Your task to perform on an android device: open chrome privacy settings Image 0: 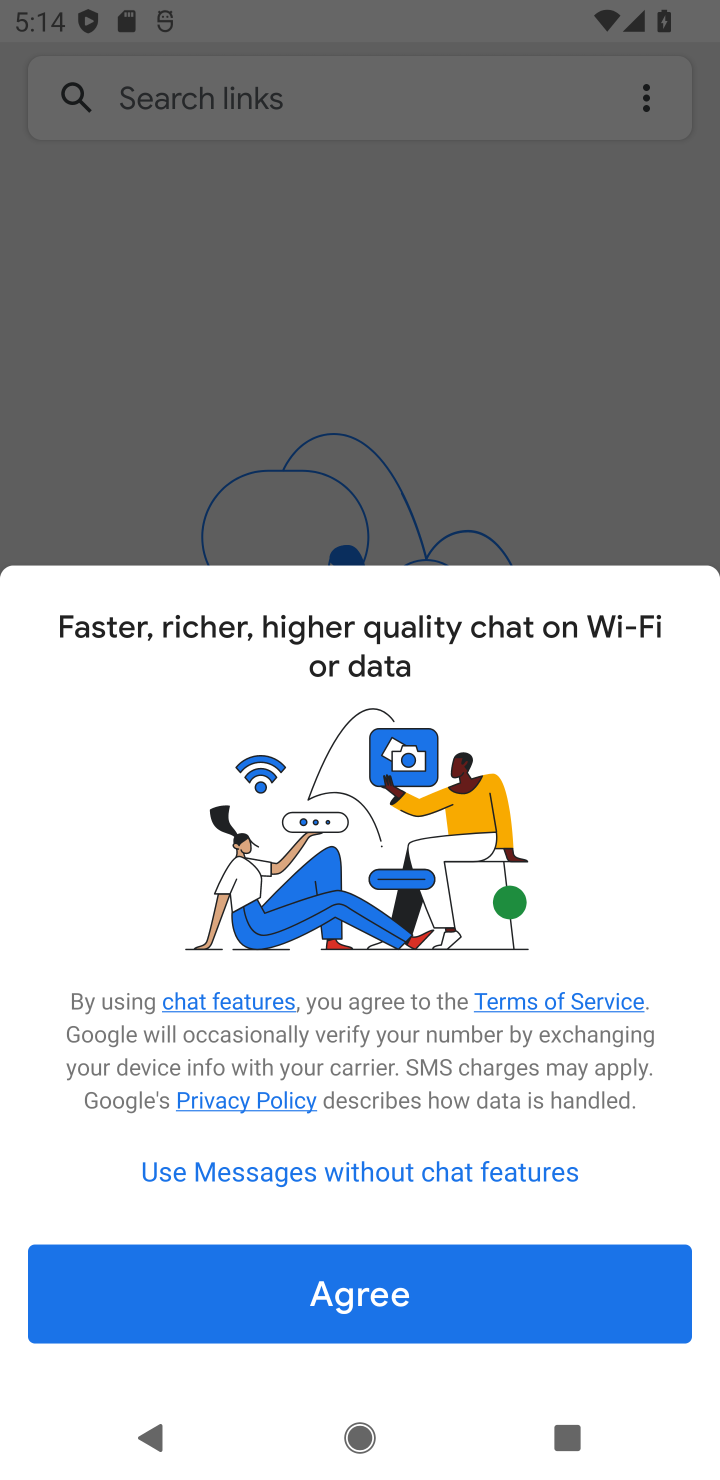
Step 0: press home button
Your task to perform on an android device: open chrome privacy settings Image 1: 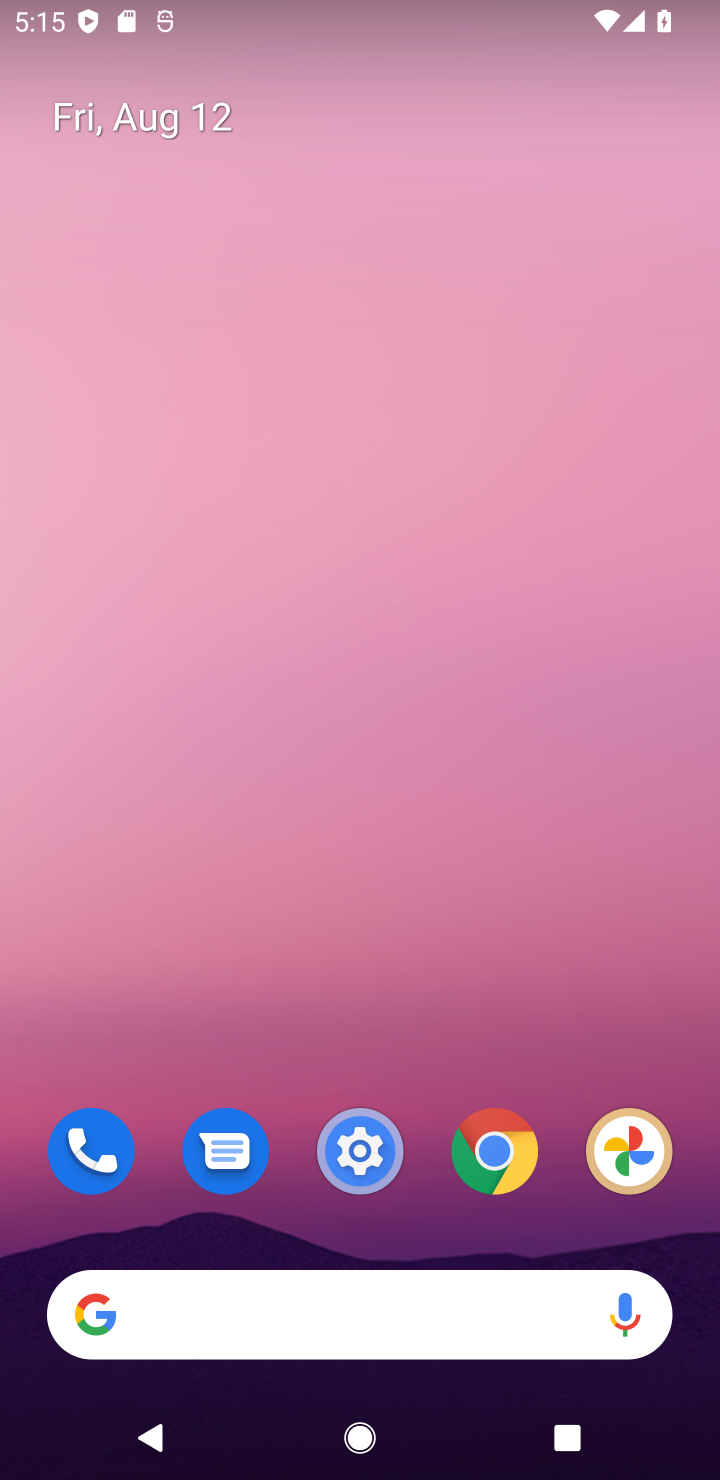
Step 1: drag from (572, 960) to (589, 135)
Your task to perform on an android device: open chrome privacy settings Image 2: 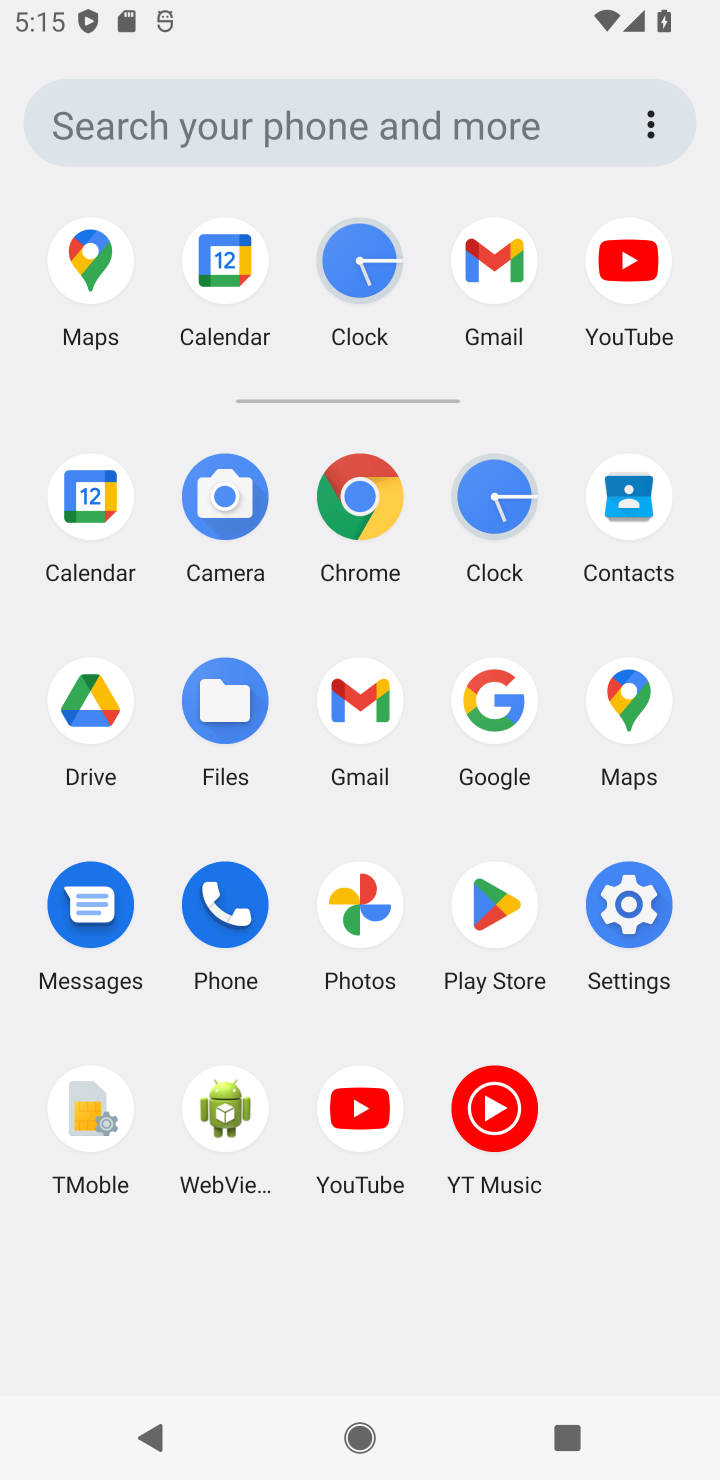
Step 2: click (374, 490)
Your task to perform on an android device: open chrome privacy settings Image 3: 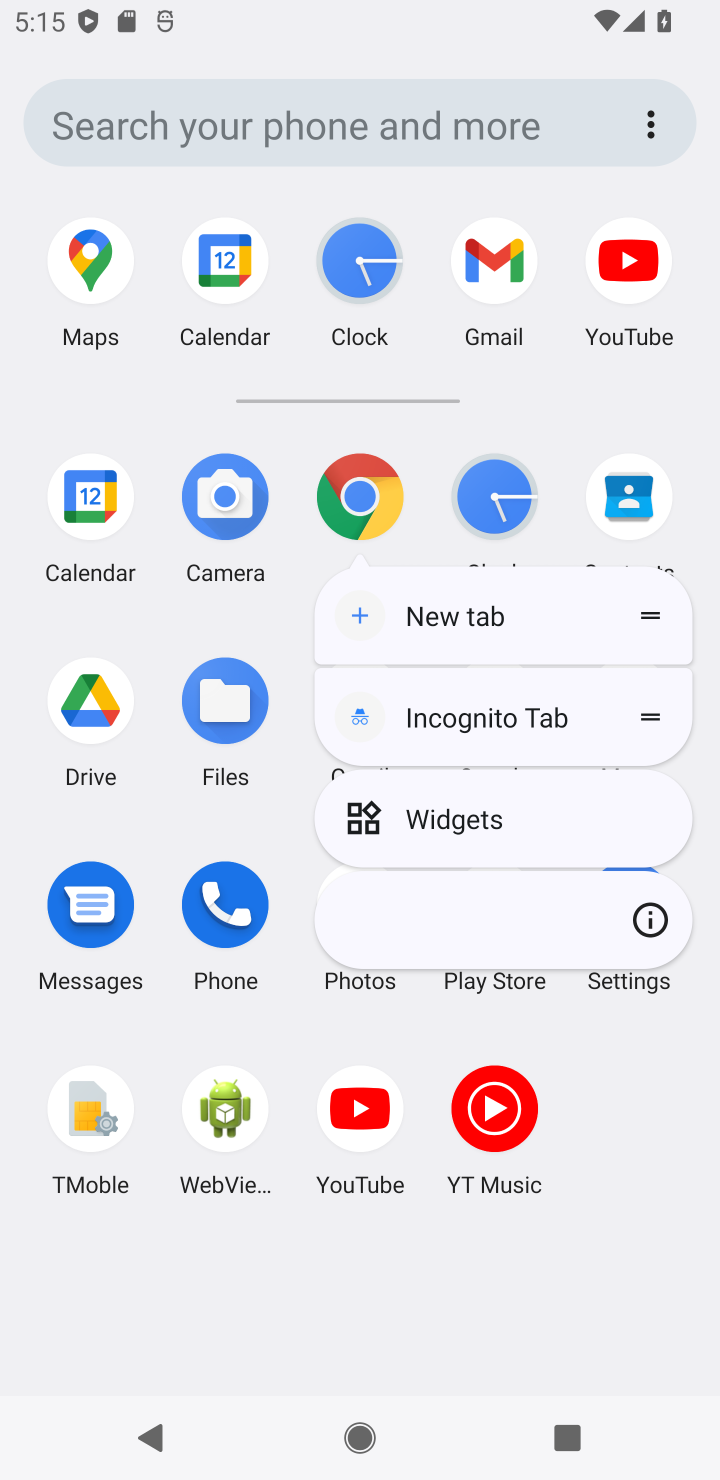
Step 3: click (363, 503)
Your task to perform on an android device: open chrome privacy settings Image 4: 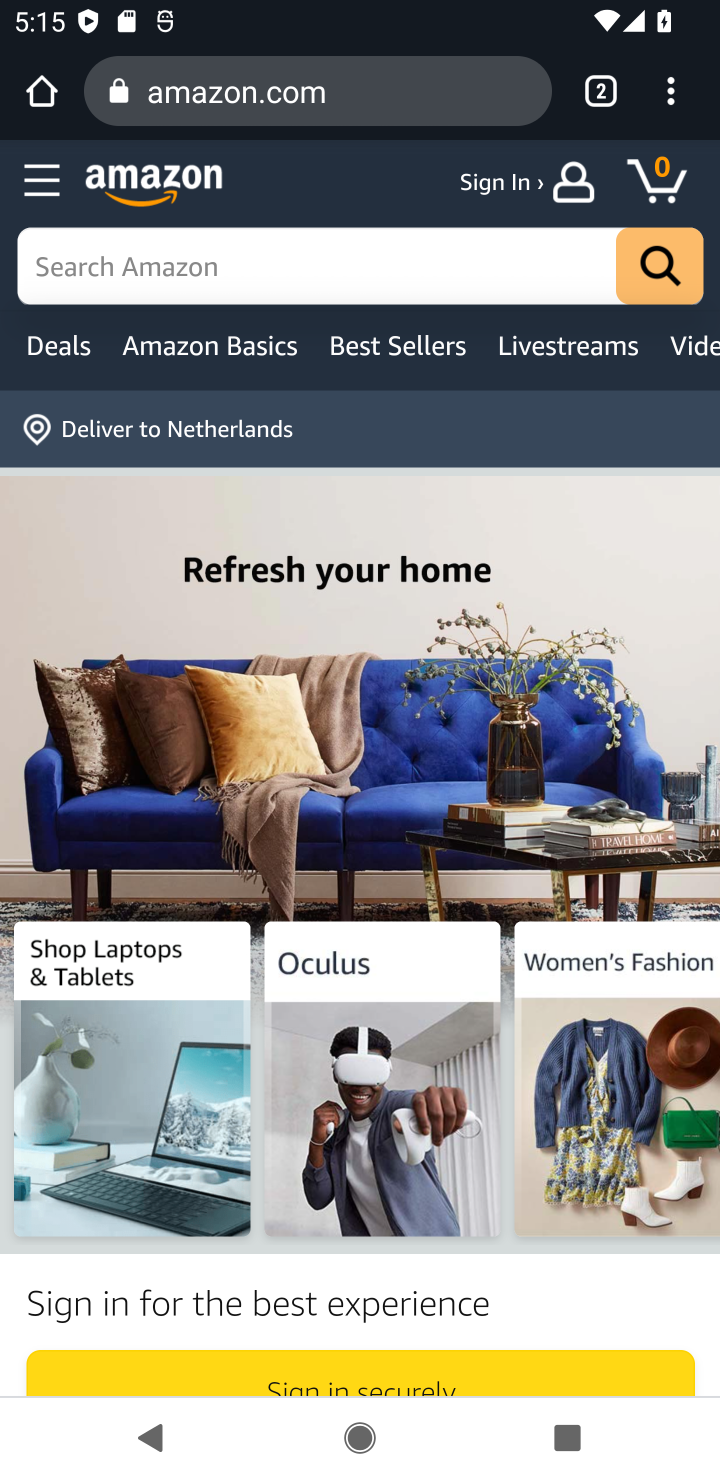
Step 4: drag from (657, 85) to (378, 1186)
Your task to perform on an android device: open chrome privacy settings Image 5: 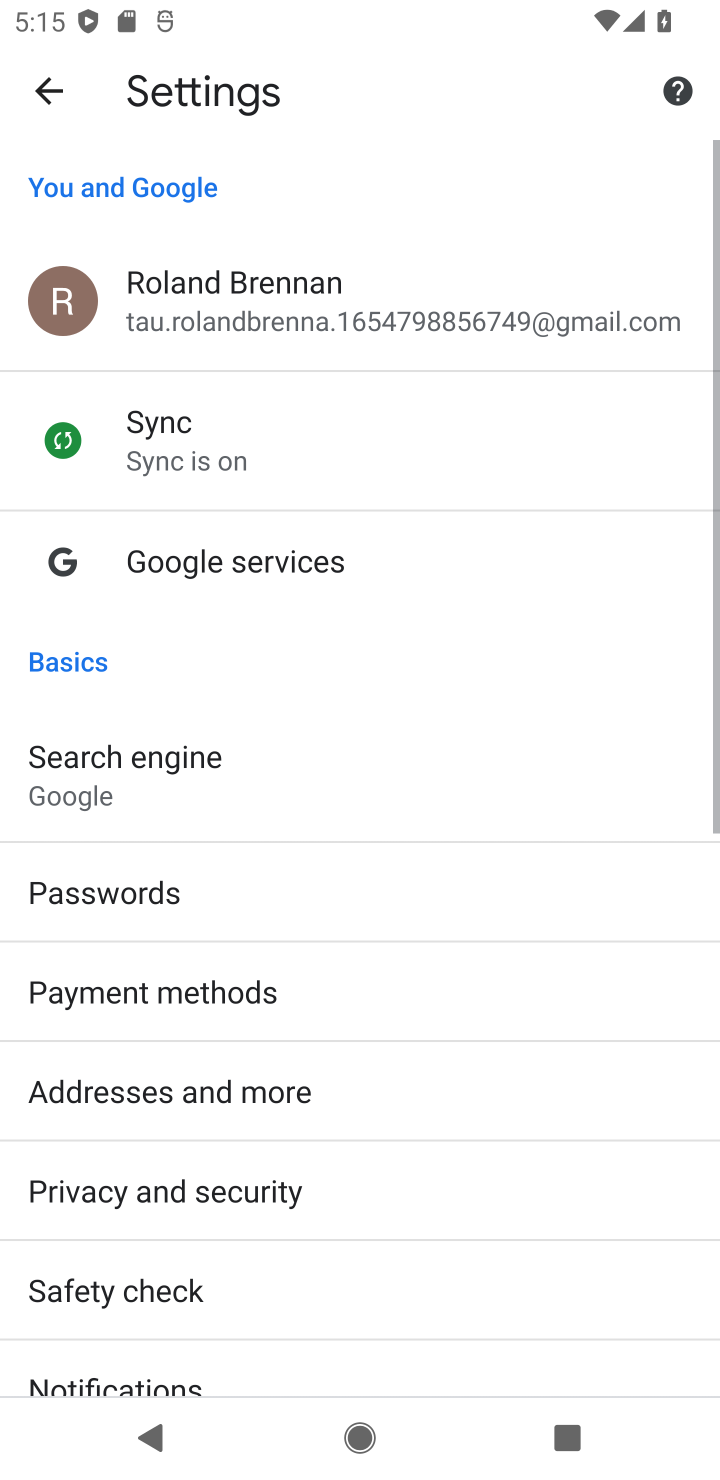
Step 5: drag from (378, 1172) to (565, 369)
Your task to perform on an android device: open chrome privacy settings Image 6: 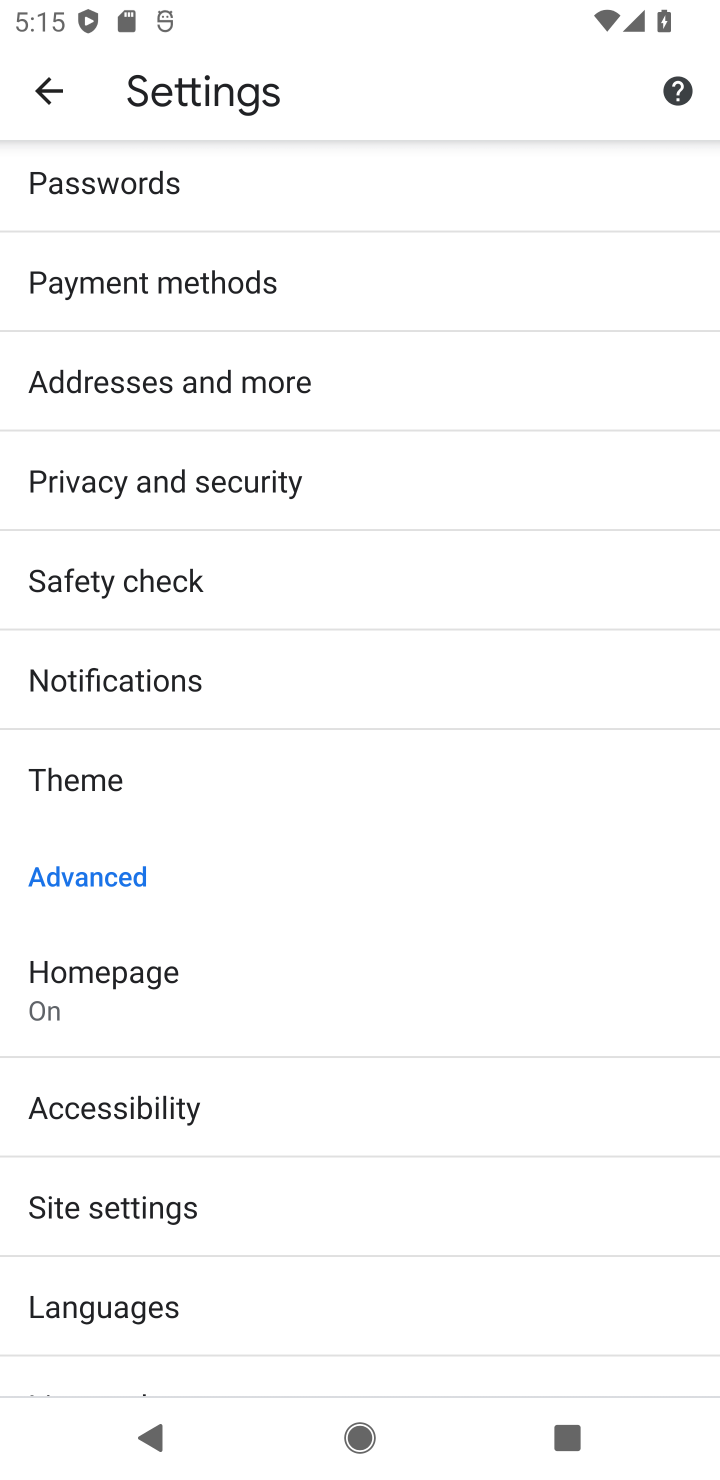
Step 6: click (193, 1212)
Your task to perform on an android device: open chrome privacy settings Image 7: 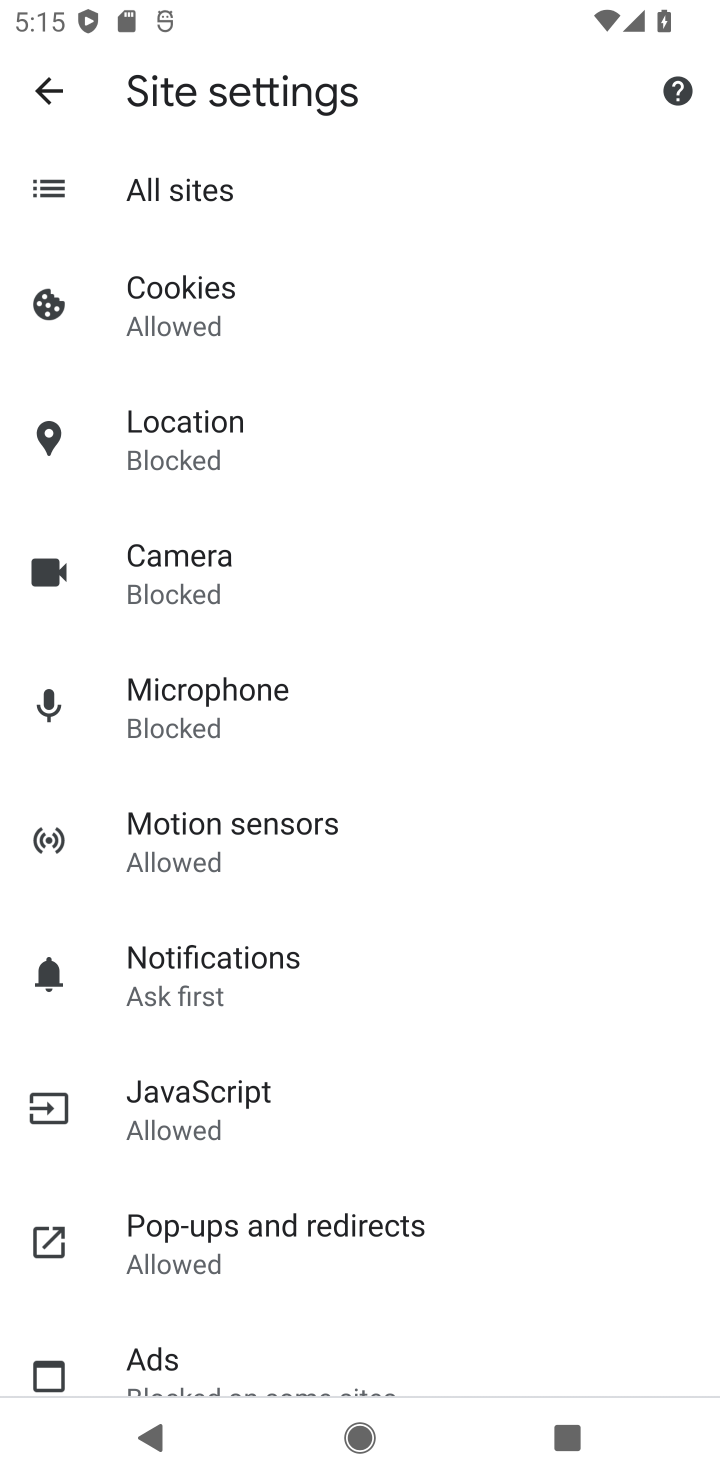
Step 7: drag from (463, 1170) to (584, 306)
Your task to perform on an android device: open chrome privacy settings Image 8: 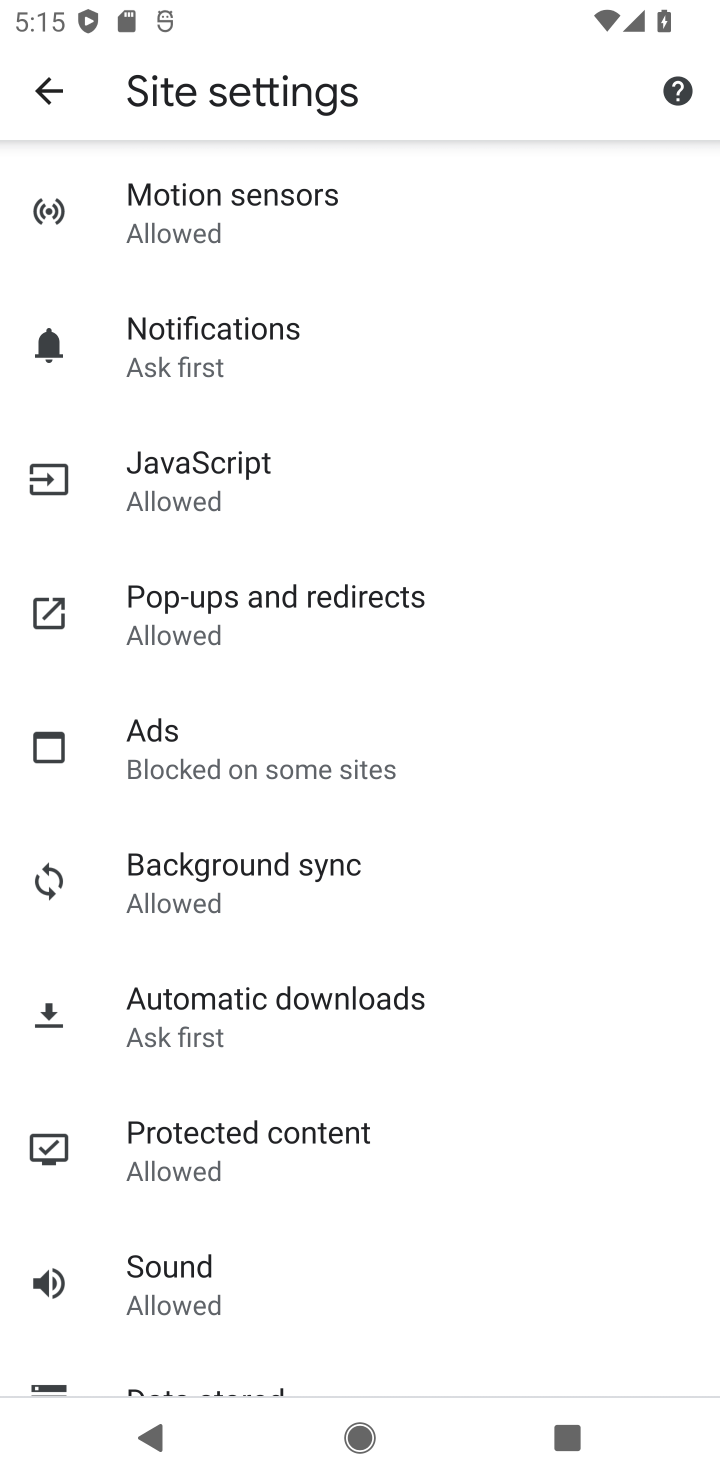
Step 8: drag from (459, 1228) to (660, 448)
Your task to perform on an android device: open chrome privacy settings Image 9: 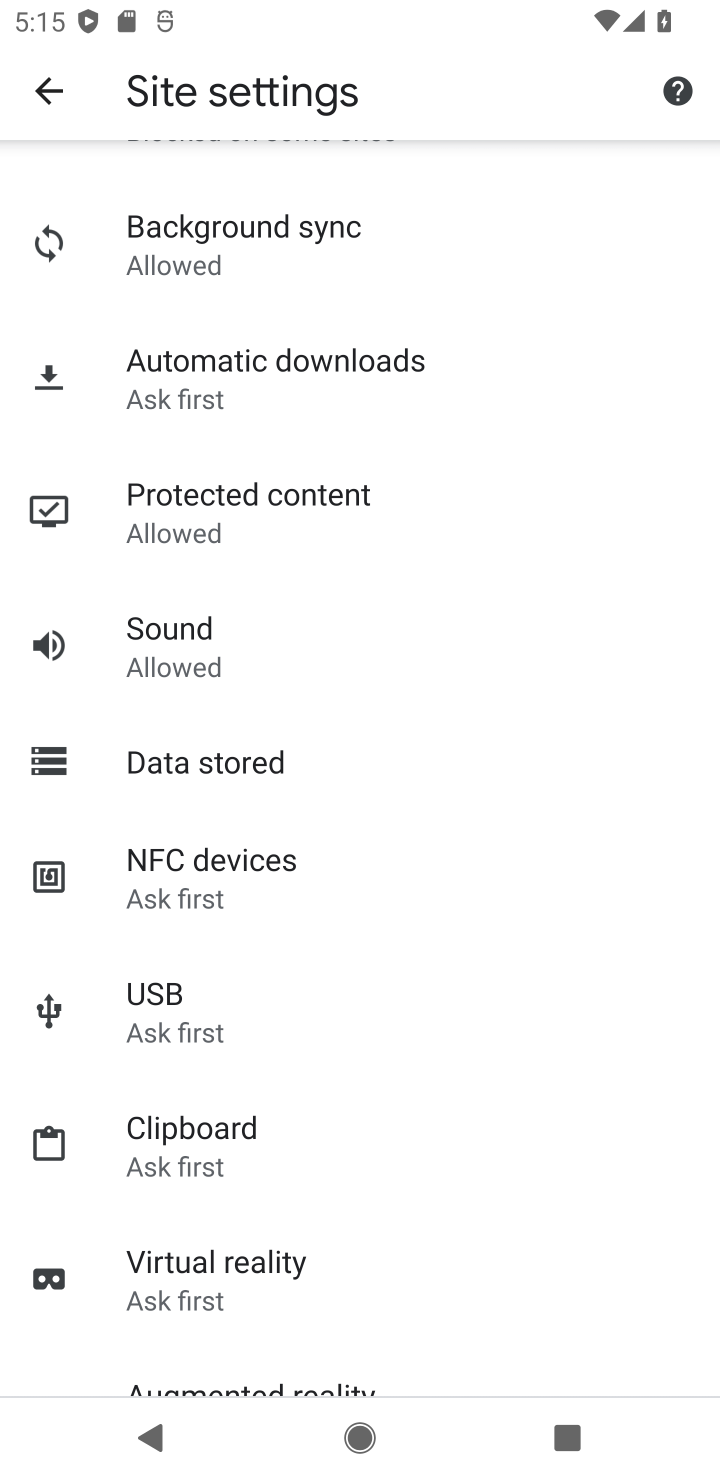
Step 9: drag from (360, 1131) to (315, 1238)
Your task to perform on an android device: open chrome privacy settings Image 10: 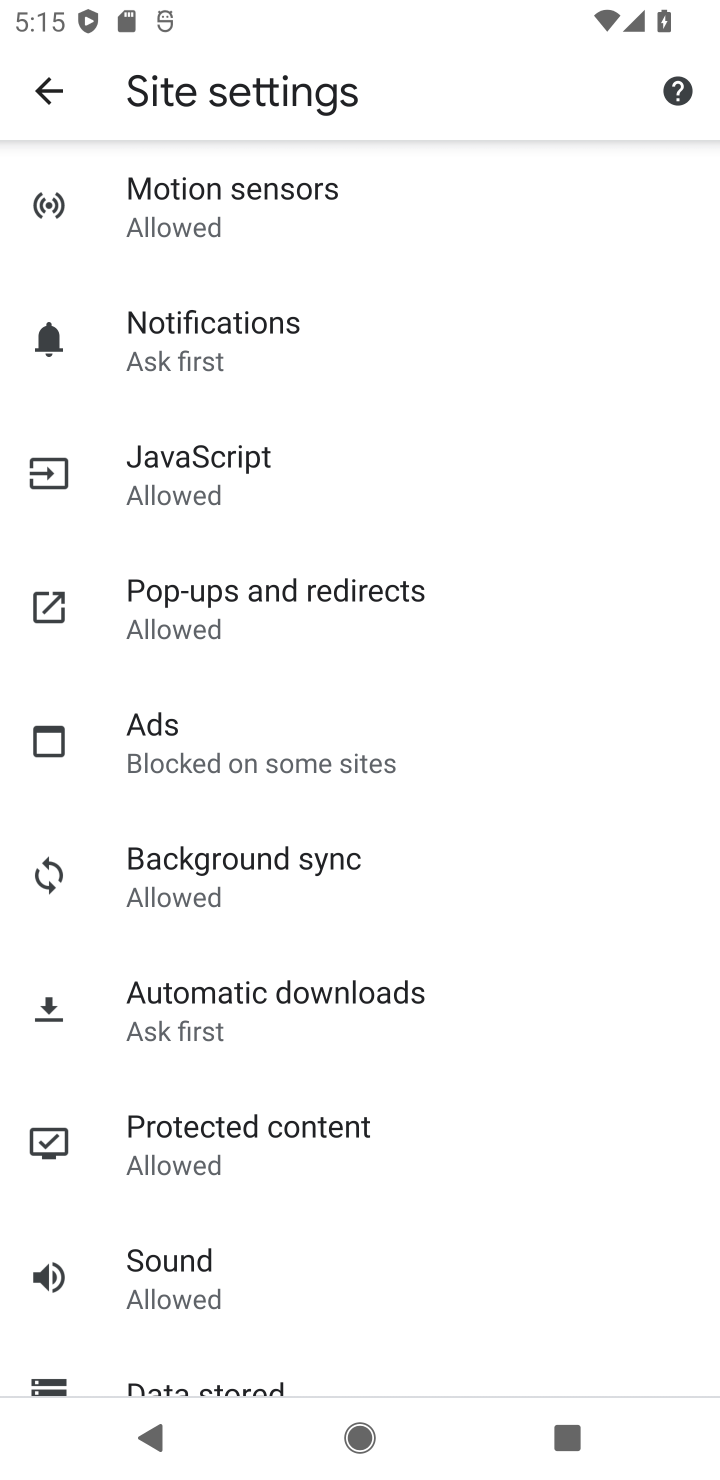
Step 10: drag from (463, 395) to (437, 1249)
Your task to perform on an android device: open chrome privacy settings Image 11: 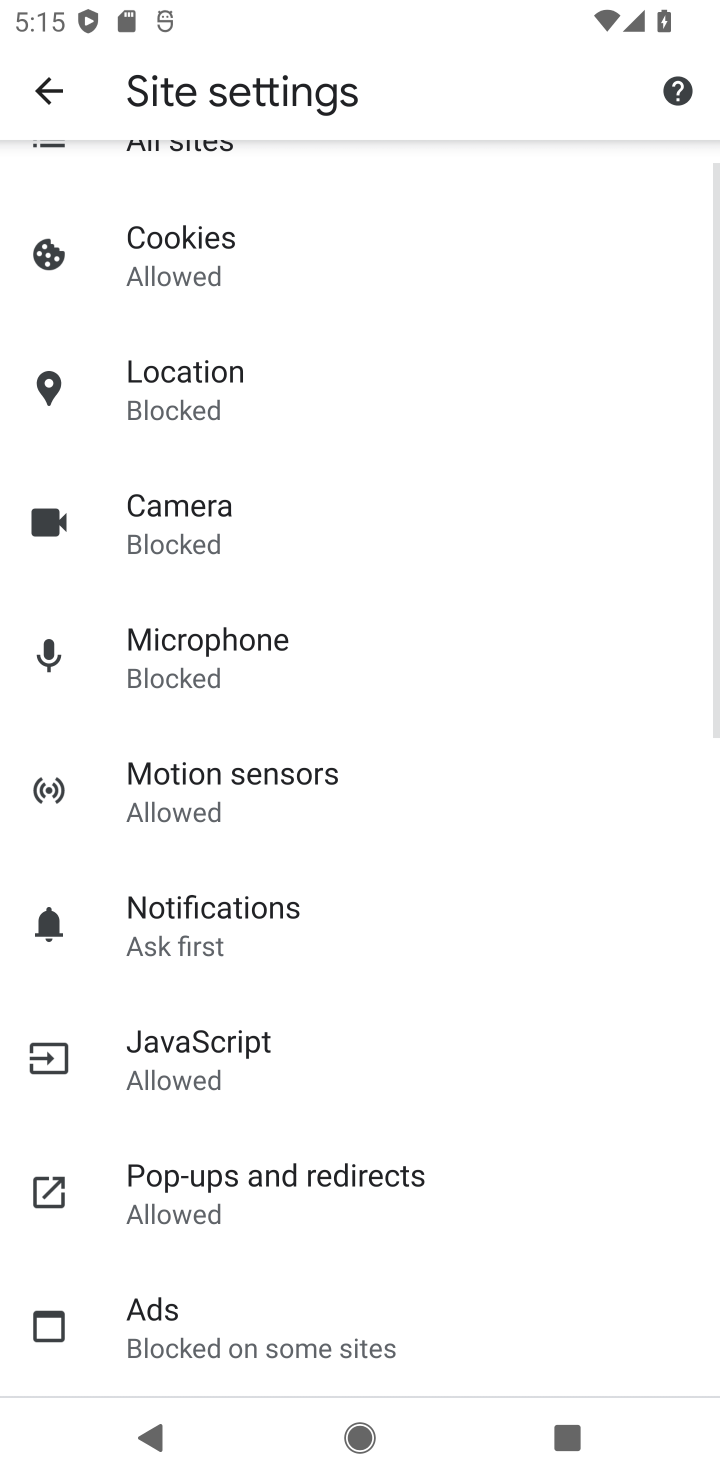
Step 11: click (52, 73)
Your task to perform on an android device: open chrome privacy settings Image 12: 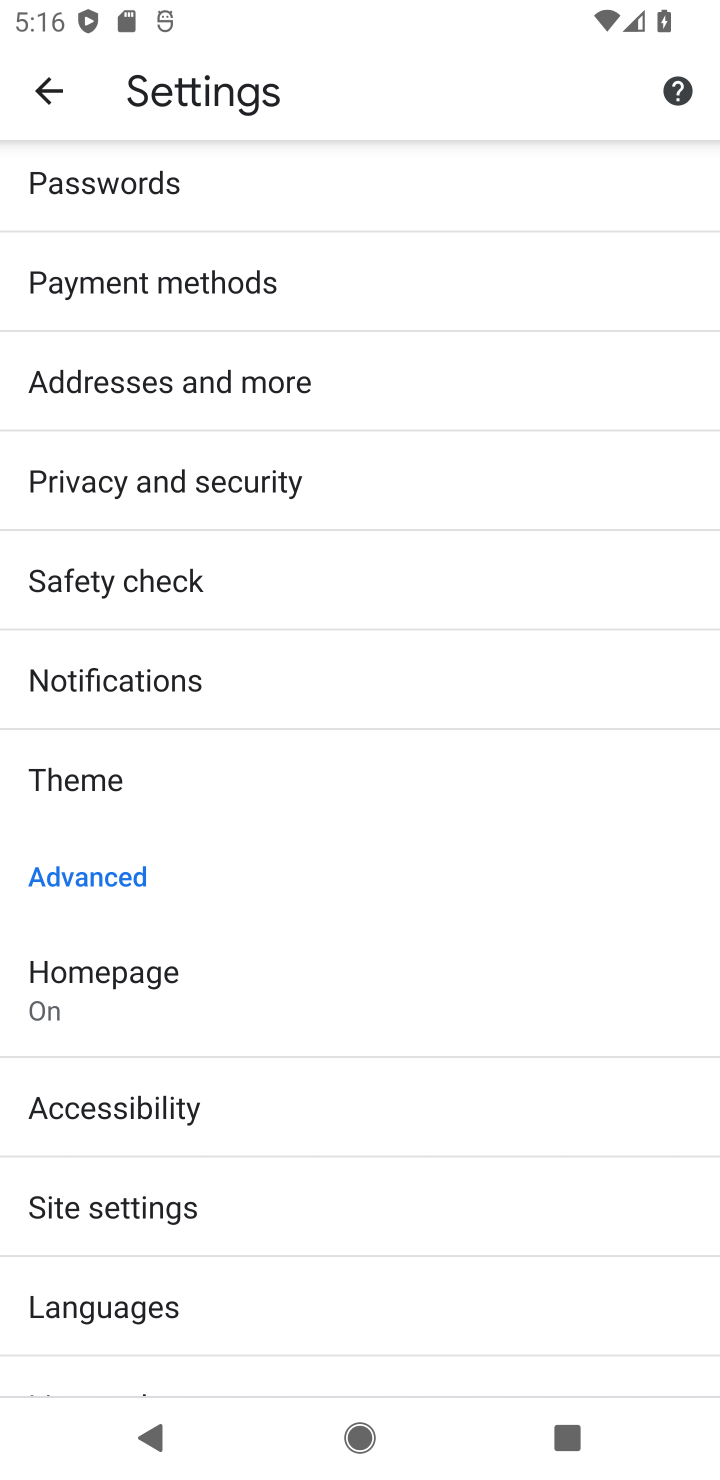
Step 12: drag from (488, 1196) to (587, 270)
Your task to perform on an android device: open chrome privacy settings Image 13: 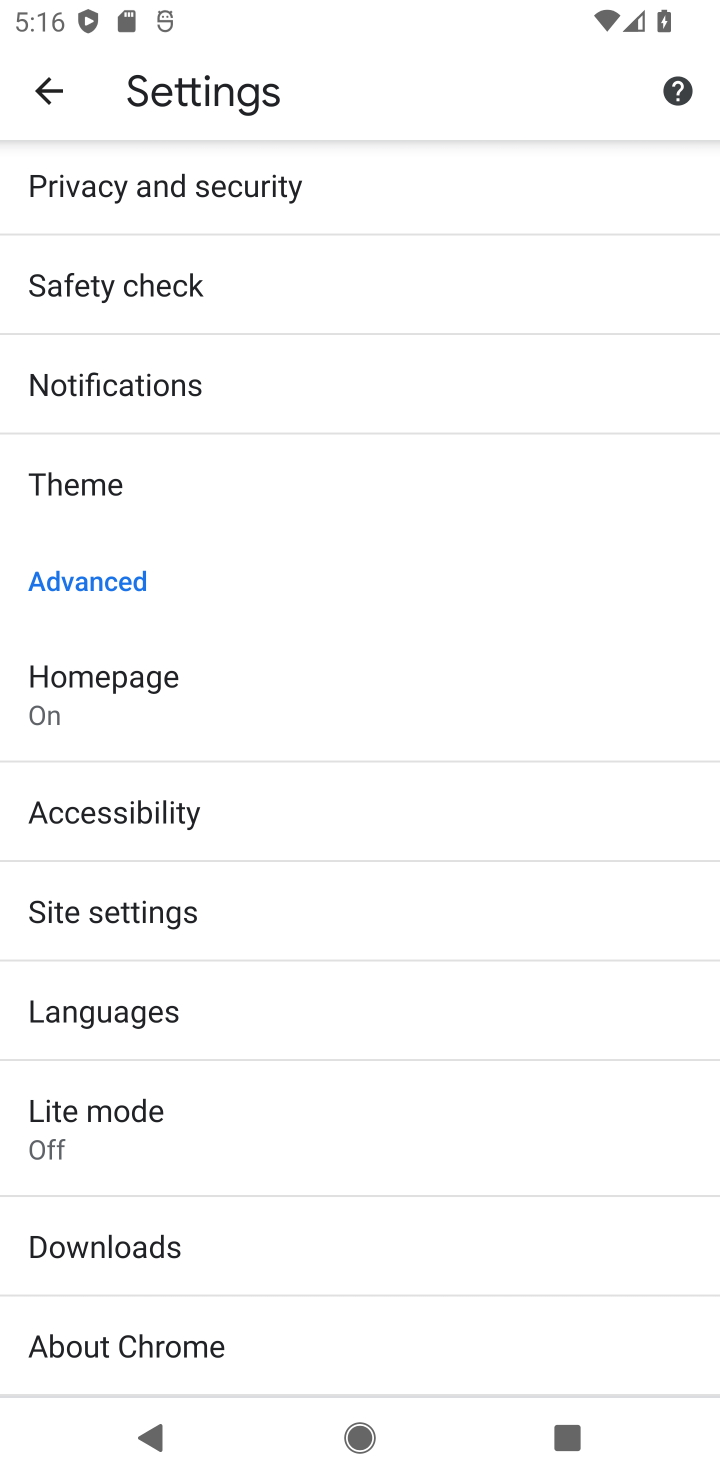
Step 13: drag from (524, 402) to (529, 868)
Your task to perform on an android device: open chrome privacy settings Image 14: 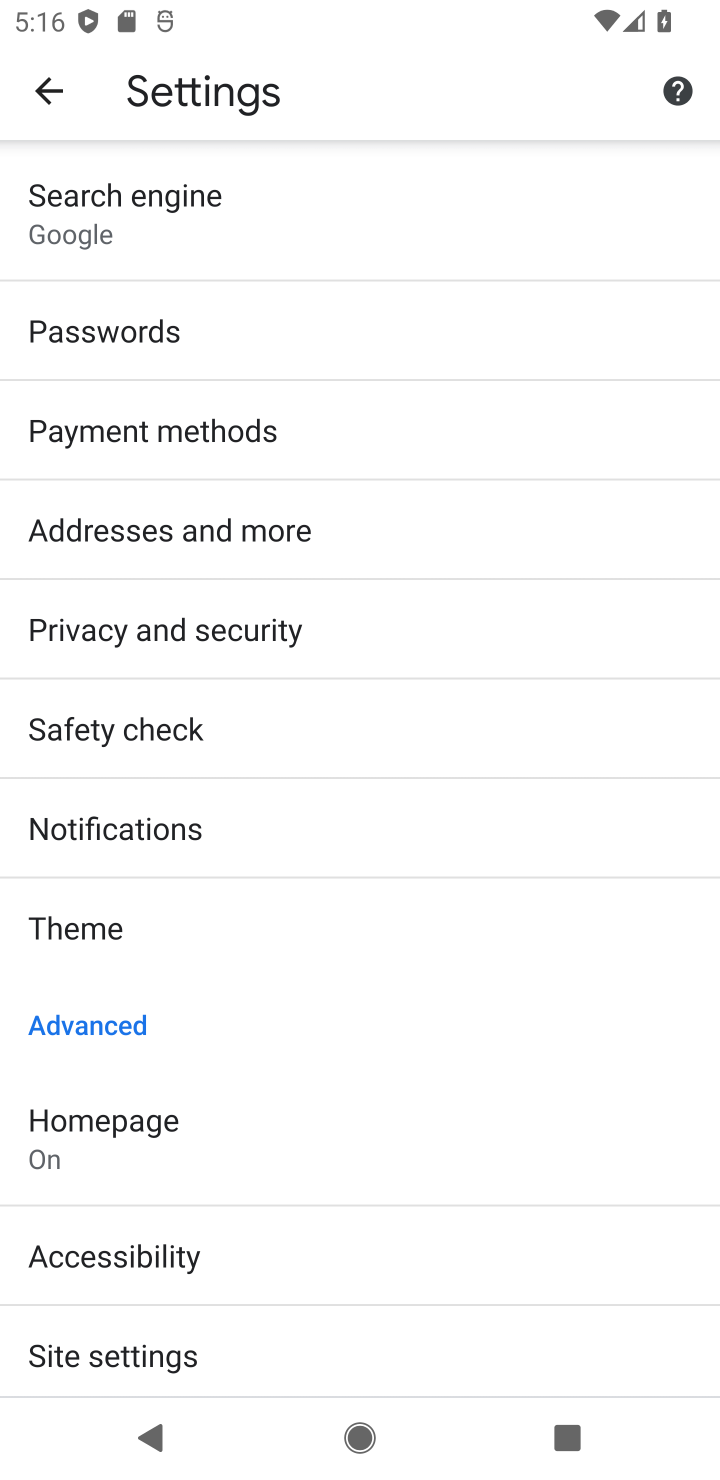
Step 14: click (206, 614)
Your task to perform on an android device: open chrome privacy settings Image 15: 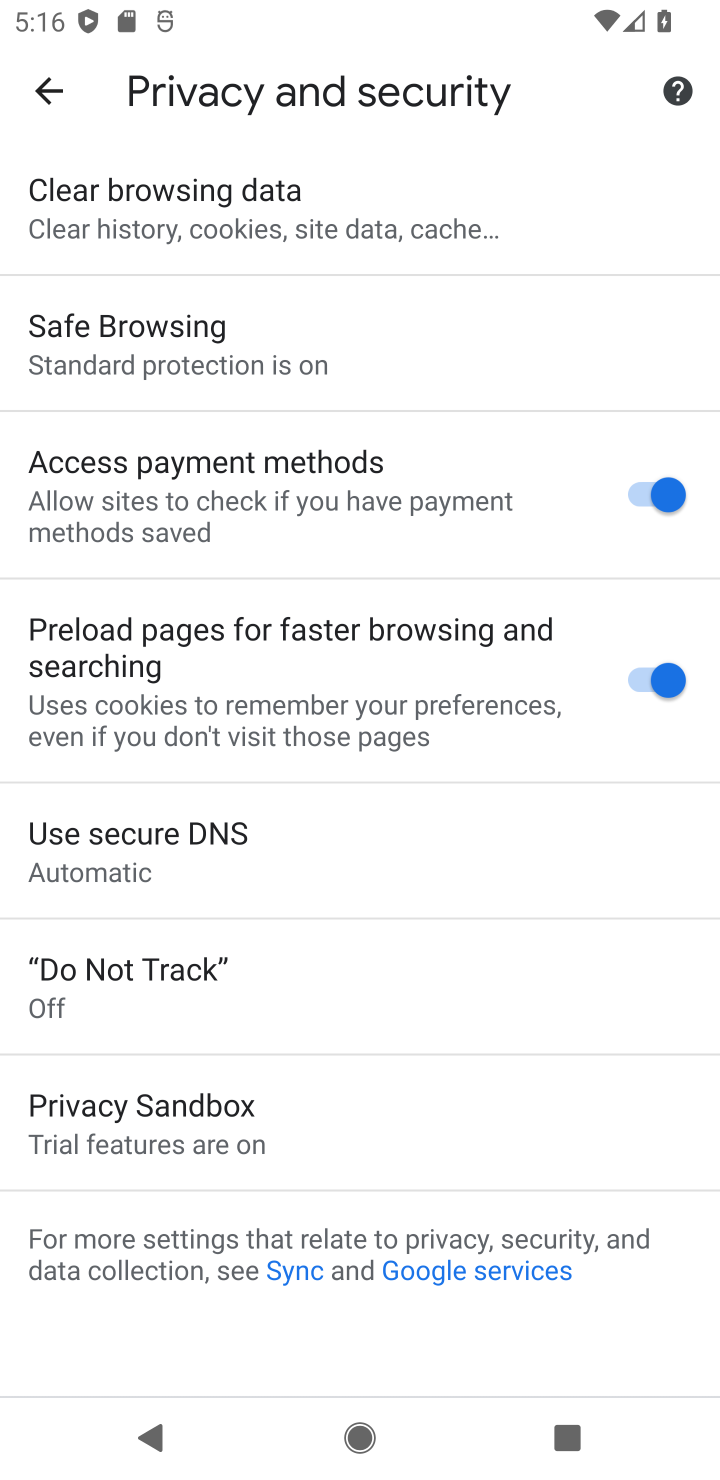
Step 15: task complete